Your task to perform on an android device: Go to Yahoo.com Image 0: 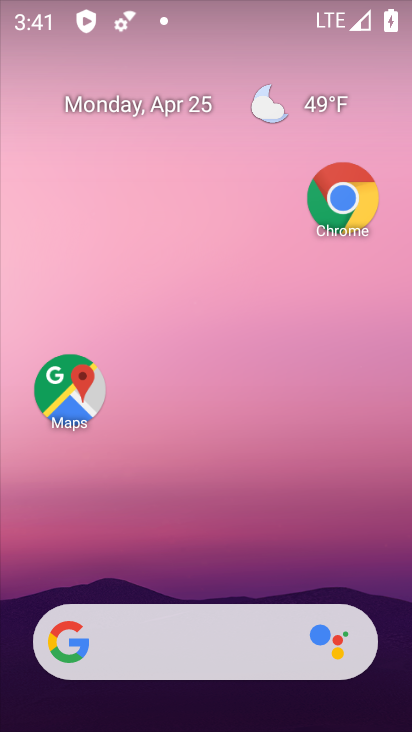
Step 0: press home button
Your task to perform on an android device: Go to Yahoo.com Image 1: 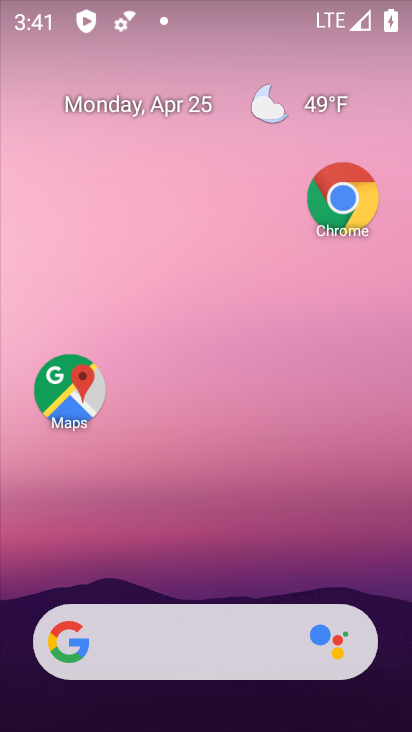
Step 1: drag from (181, 611) to (323, 99)
Your task to perform on an android device: Go to Yahoo.com Image 2: 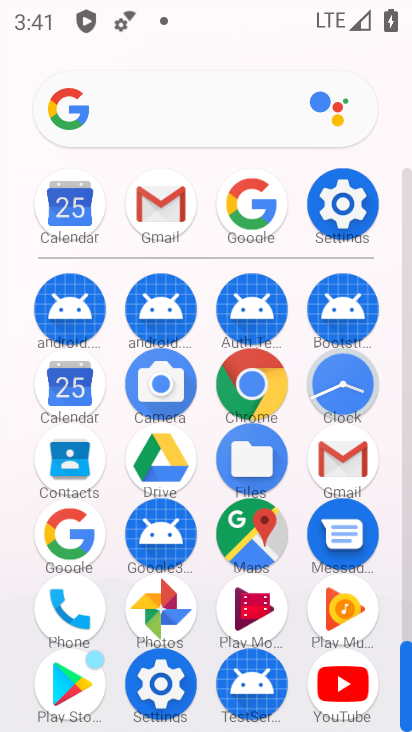
Step 2: click (240, 393)
Your task to perform on an android device: Go to Yahoo.com Image 3: 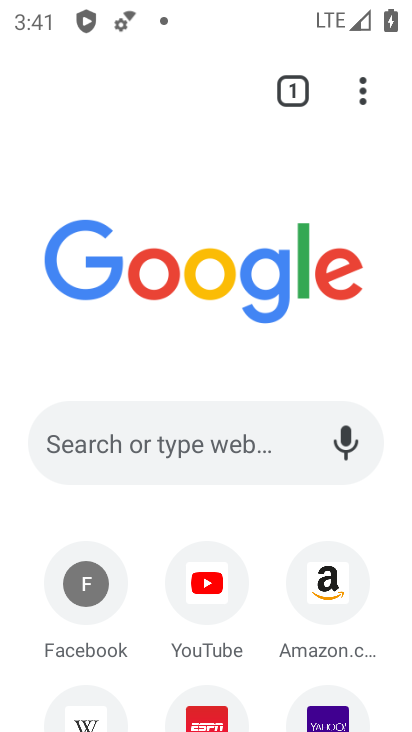
Step 3: drag from (141, 680) to (312, 148)
Your task to perform on an android device: Go to Yahoo.com Image 4: 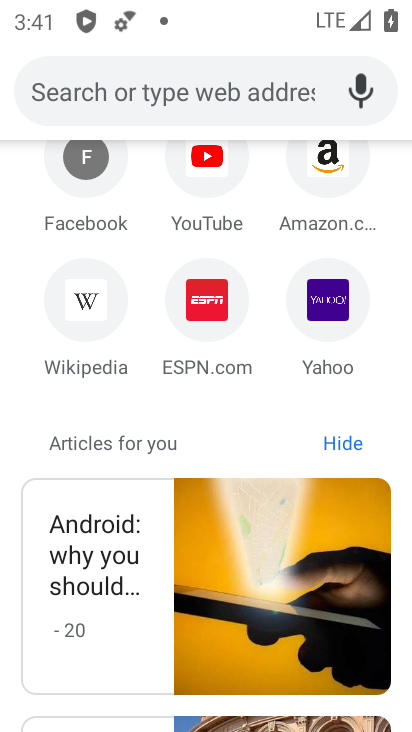
Step 4: click (320, 306)
Your task to perform on an android device: Go to Yahoo.com Image 5: 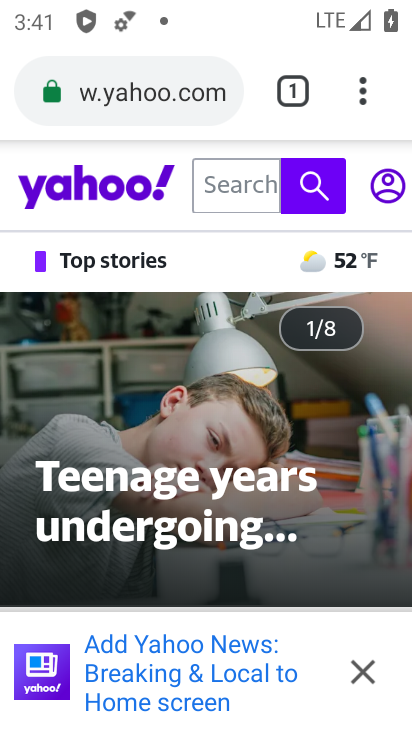
Step 5: task complete